Your task to perform on an android device: choose inbox layout in the gmail app Image 0: 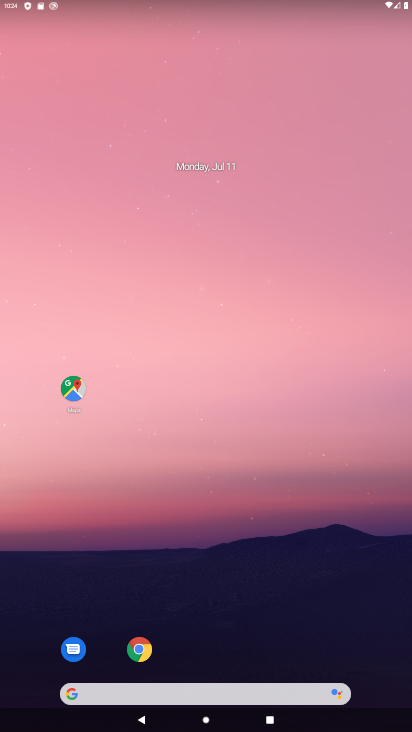
Step 0: drag from (330, 639) to (268, 109)
Your task to perform on an android device: choose inbox layout in the gmail app Image 1: 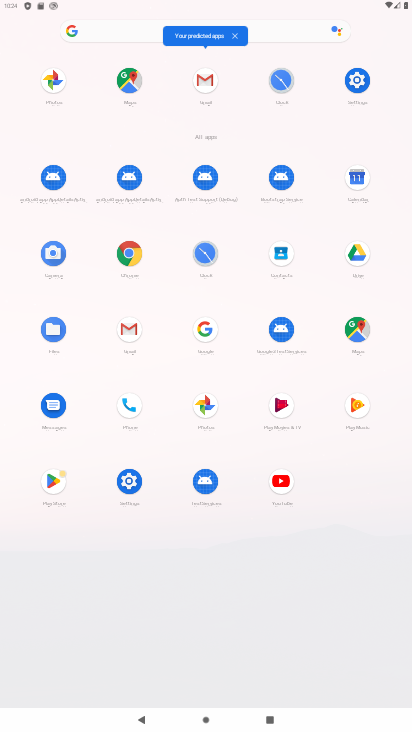
Step 1: click (208, 77)
Your task to perform on an android device: choose inbox layout in the gmail app Image 2: 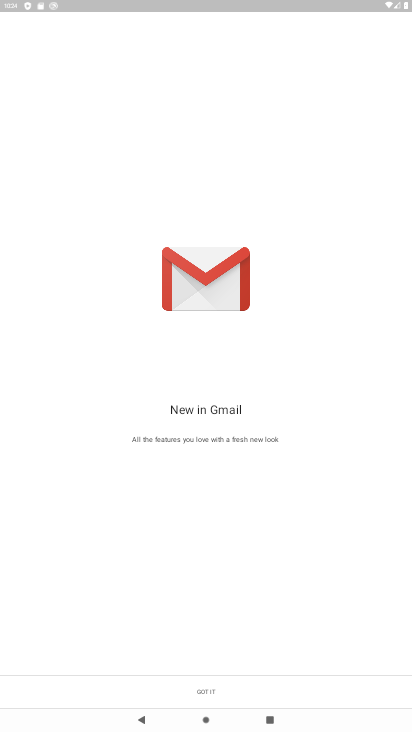
Step 2: click (223, 691)
Your task to perform on an android device: choose inbox layout in the gmail app Image 3: 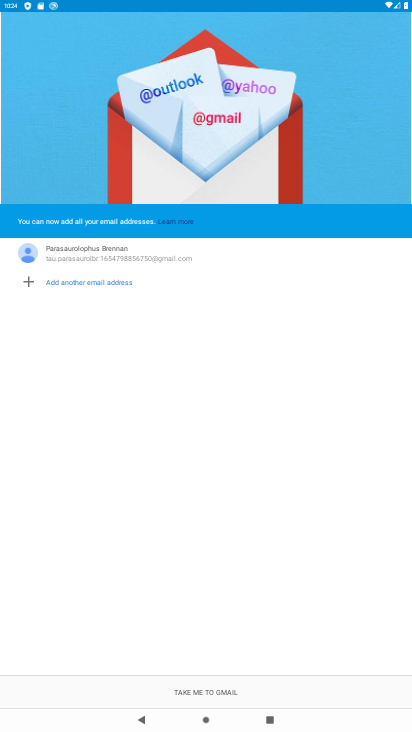
Step 3: click (223, 691)
Your task to perform on an android device: choose inbox layout in the gmail app Image 4: 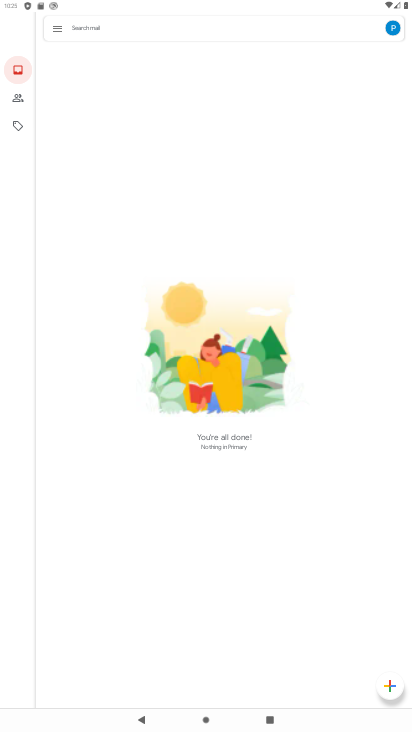
Step 4: click (58, 25)
Your task to perform on an android device: choose inbox layout in the gmail app Image 5: 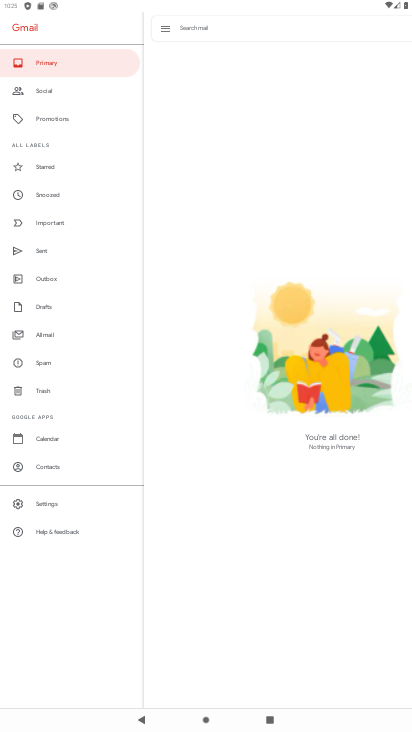
Step 5: click (57, 505)
Your task to perform on an android device: choose inbox layout in the gmail app Image 6: 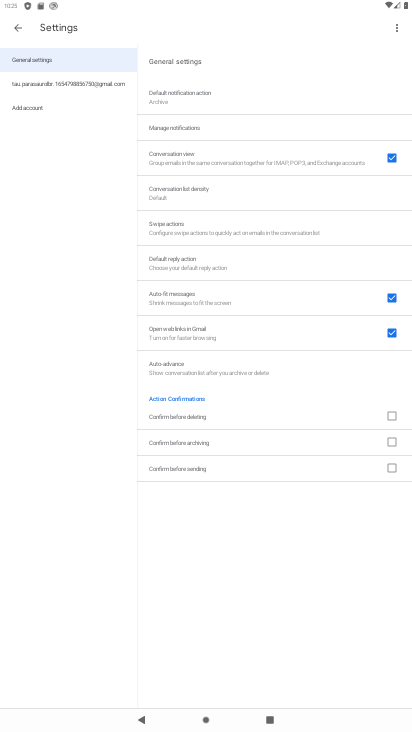
Step 6: click (99, 85)
Your task to perform on an android device: choose inbox layout in the gmail app Image 7: 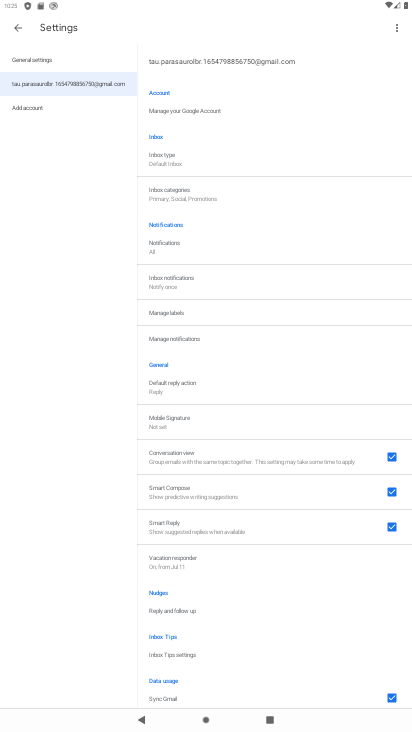
Step 7: click (173, 162)
Your task to perform on an android device: choose inbox layout in the gmail app Image 8: 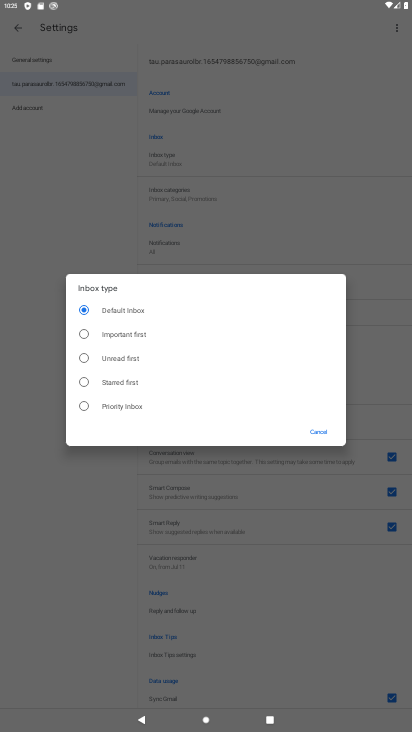
Step 8: task complete